Your task to perform on an android device: see creations saved in the google photos Image 0: 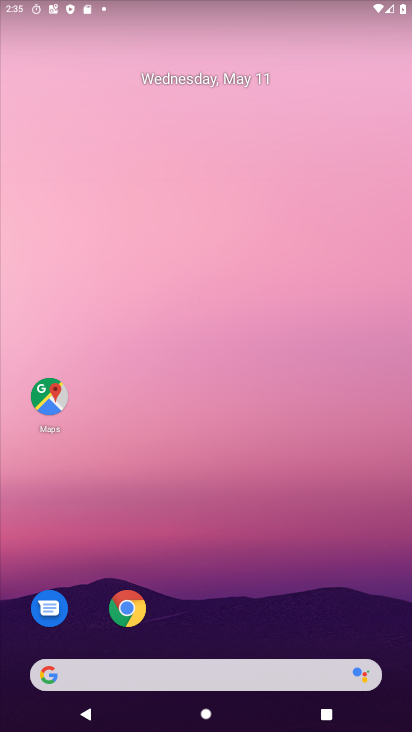
Step 0: drag from (231, 599) to (277, 96)
Your task to perform on an android device: see creations saved in the google photos Image 1: 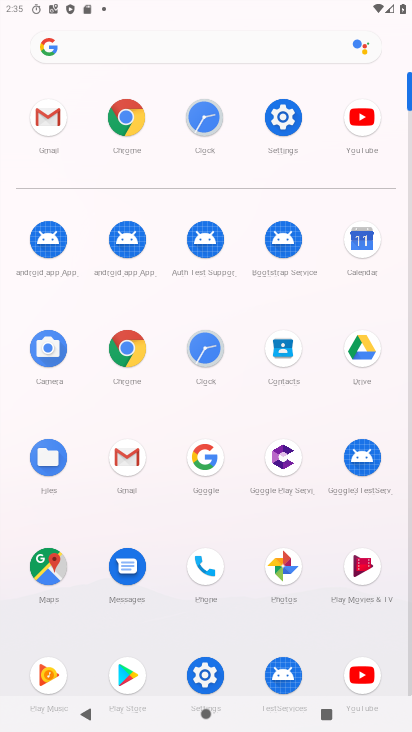
Step 1: click (287, 562)
Your task to perform on an android device: see creations saved in the google photos Image 2: 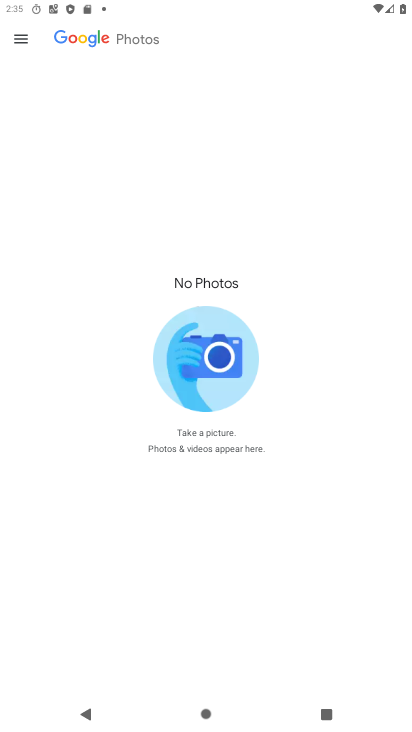
Step 2: click (20, 38)
Your task to perform on an android device: see creations saved in the google photos Image 3: 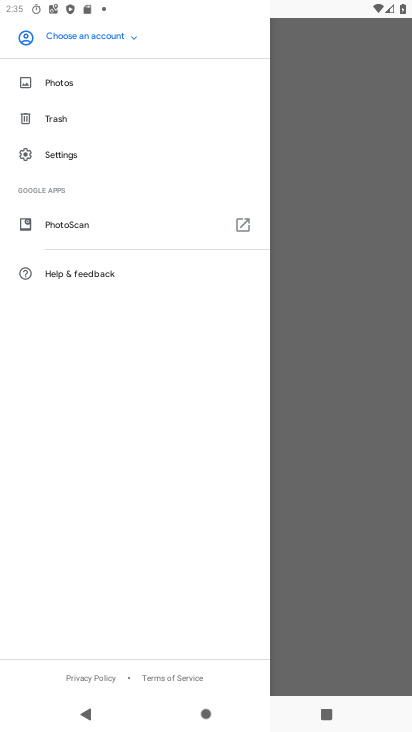
Step 3: click (68, 32)
Your task to perform on an android device: see creations saved in the google photos Image 4: 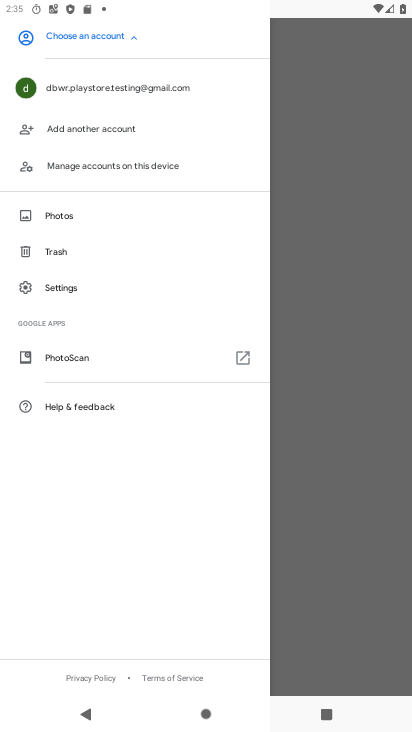
Step 4: click (105, 83)
Your task to perform on an android device: see creations saved in the google photos Image 5: 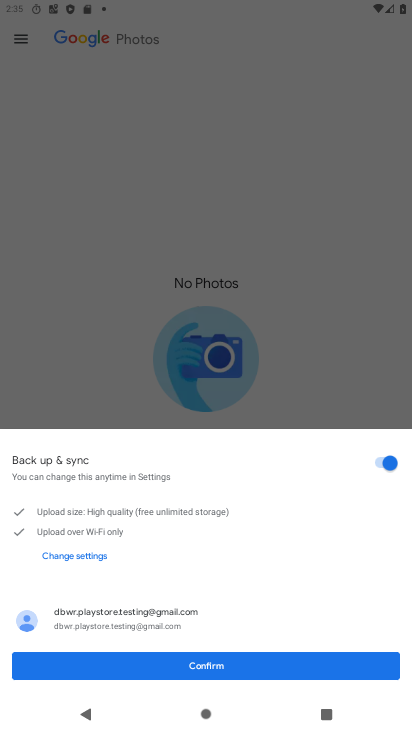
Step 5: click (224, 669)
Your task to perform on an android device: see creations saved in the google photos Image 6: 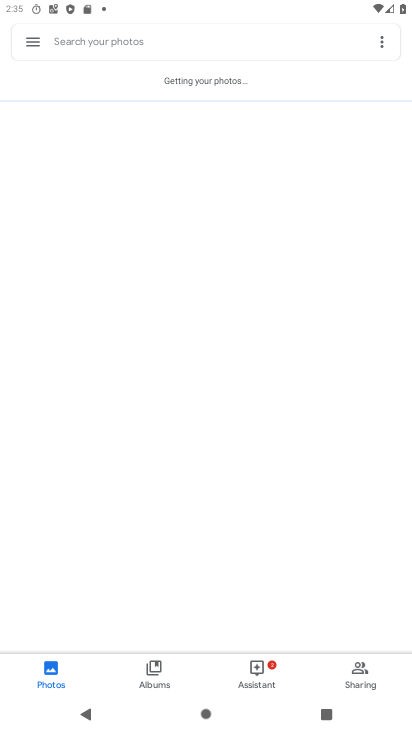
Step 6: click (171, 38)
Your task to perform on an android device: see creations saved in the google photos Image 7: 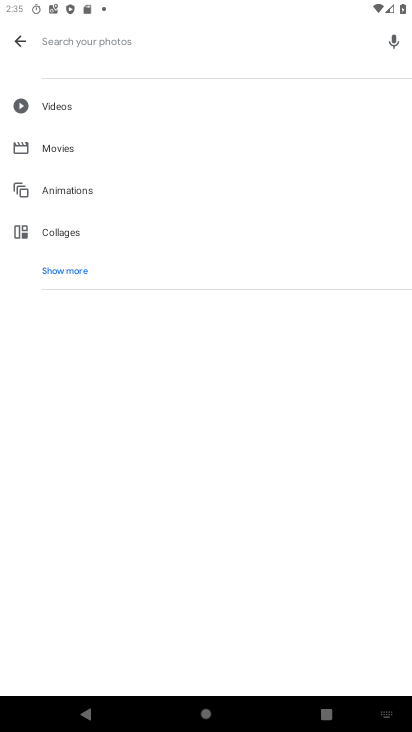
Step 7: click (60, 270)
Your task to perform on an android device: see creations saved in the google photos Image 8: 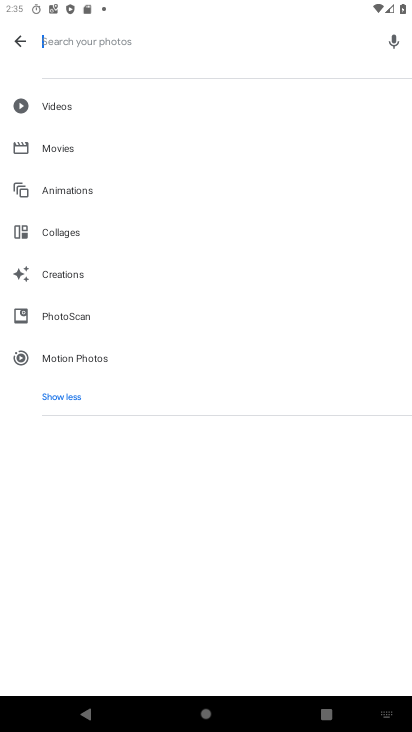
Step 8: click (57, 270)
Your task to perform on an android device: see creations saved in the google photos Image 9: 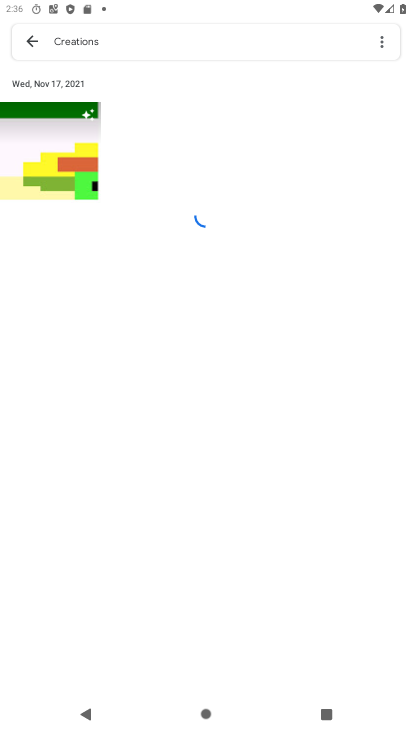
Step 9: task complete